Your task to perform on an android device: add a contact Image 0: 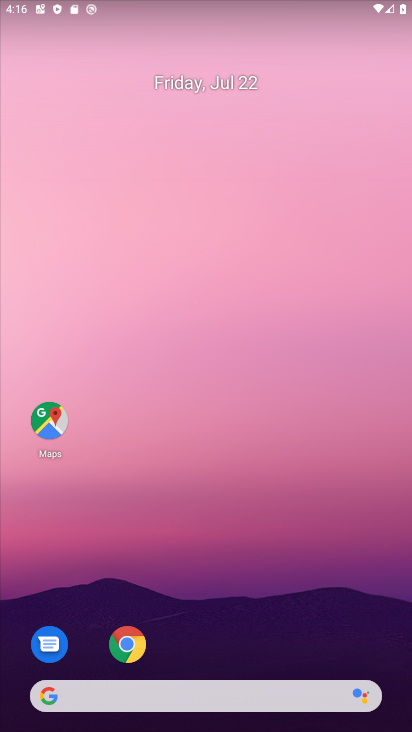
Step 0: drag from (219, 650) to (237, 149)
Your task to perform on an android device: add a contact Image 1: 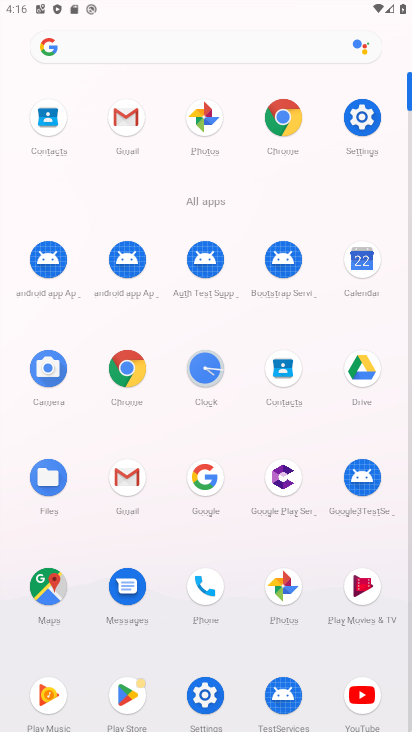
Step 1: click (293, 360)
Your task to perform on an android device: add a contact Image 2: 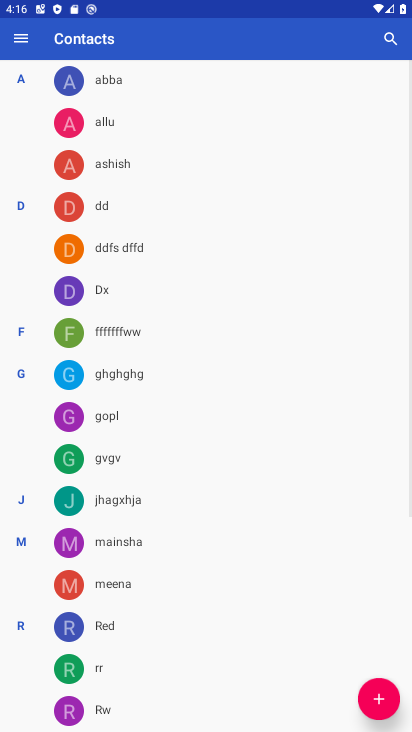
Step 2: click (380, 703)
Your task to perform on an android device: add a contact Image 3: 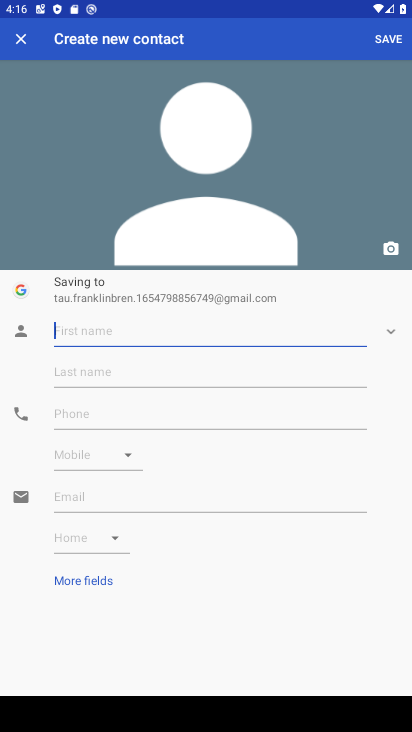
Step 3: type "mha"
Your task to perform on an android device: add a contact Image 4: 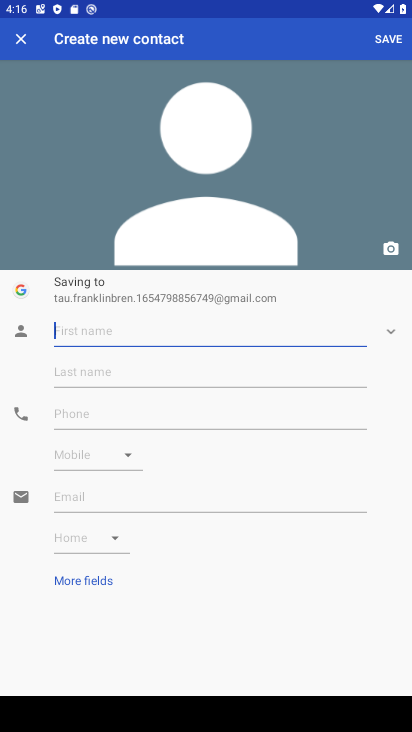
Step 4: click (181, 416)
Your task to perform on an android device: add a contact Image 5: 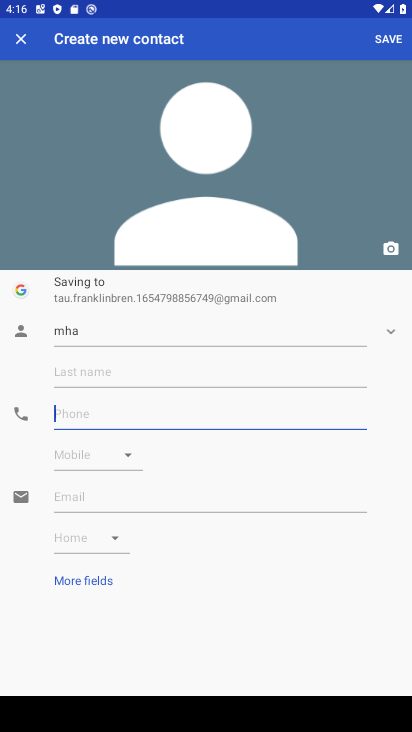
Step 5: type "6678587"
Your task to perform on an android device: add a contact Image 6: 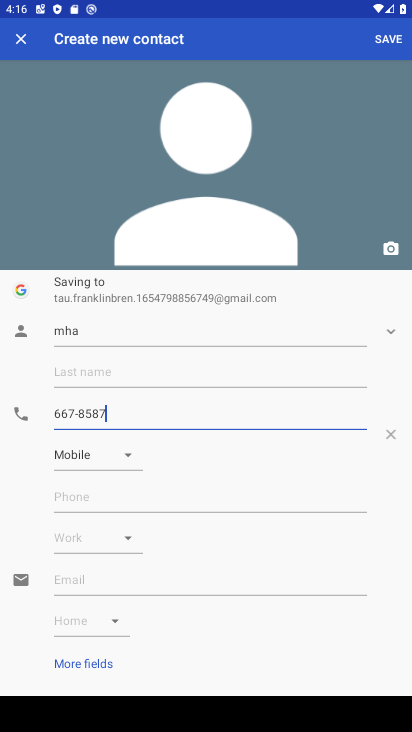
Step 6: click (389, 35)
Your task to perform on an android device: add a contact Image 7: 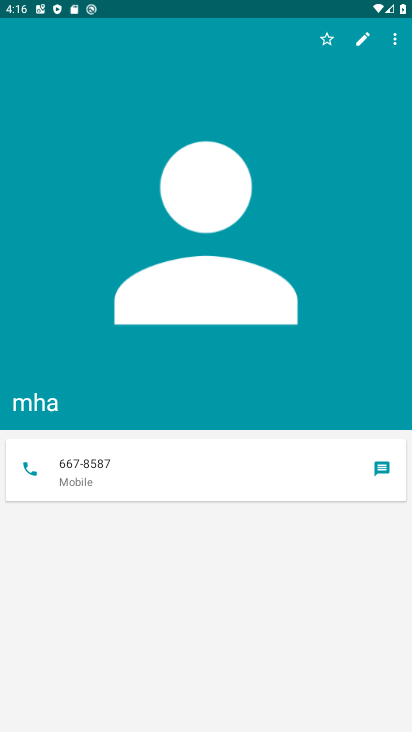
Step 7: task complete